Your task to perform on an android device: change the upload size in google photos Image 0: 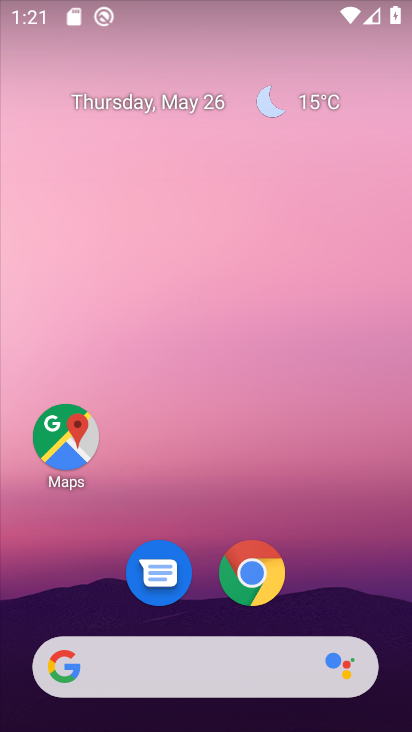
Step 0: drag from (357, 593) to (319, 20)
Your task to perform on an android device: change the upload size in google photos Image 1: 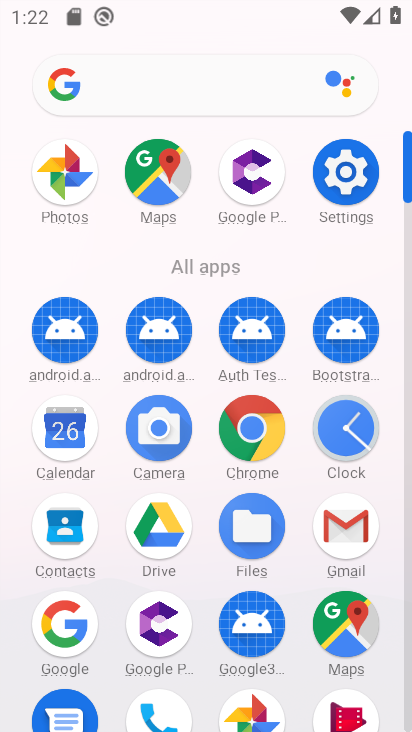
Step 1: click (262, 704)
Your task to perform on an android device: change the upload size in google photos Image 2: 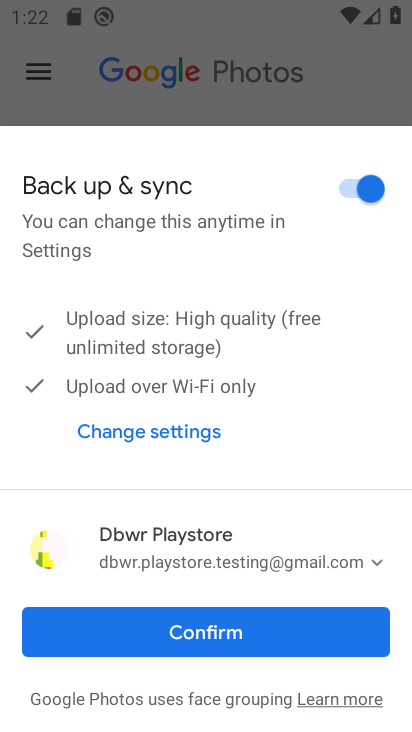
Step 2: click (204, 655)
Your task to perform on an android device: change the upload size in google photos Image 3: 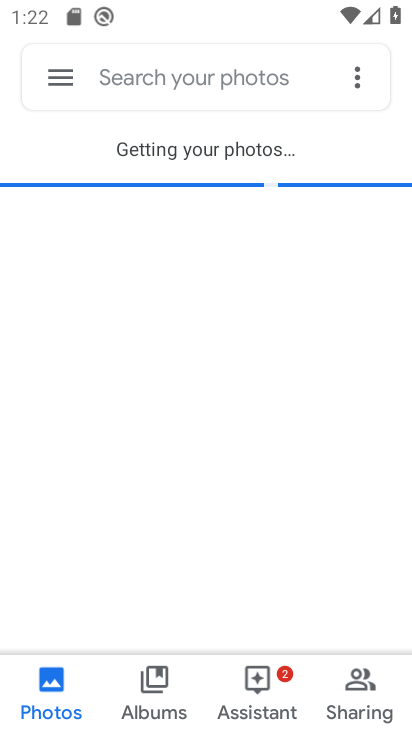
Step 3: click (65, 86)
Your task to perform on an android device: change the upload size in google photos Image 4: 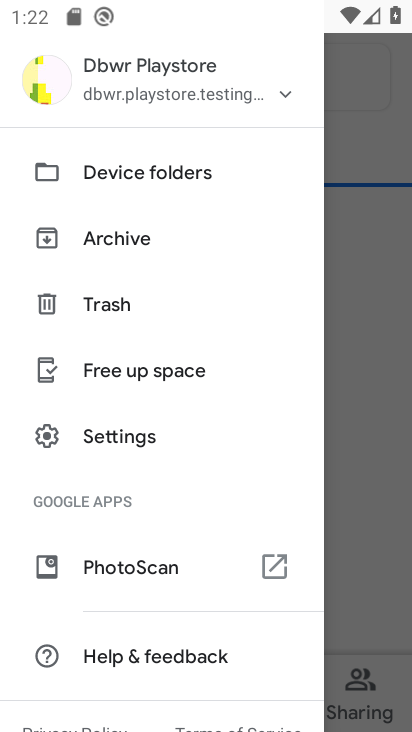
Step 4: click (158, 428)
Your task to perform on an android device: change the upload size in google photos Image 5: 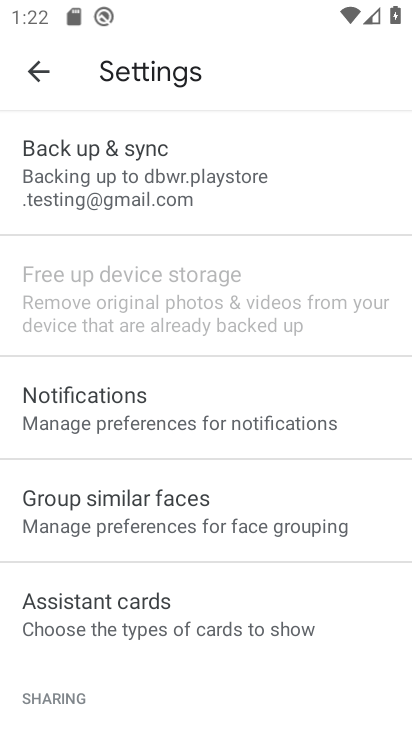
Step 5: click (125, 169)
Your task to perform on an android device: change the upload size in google photos Image 6: 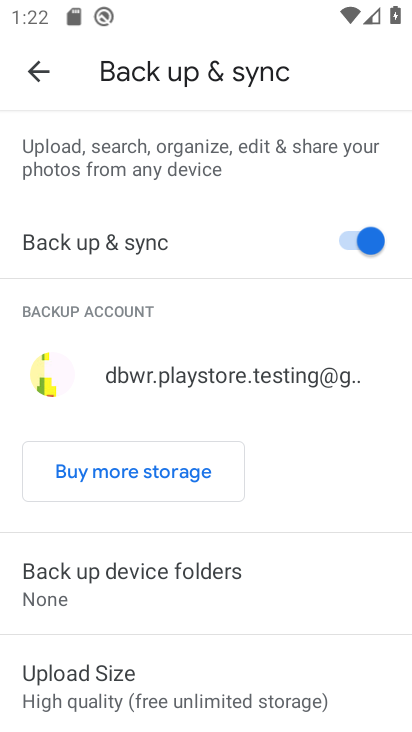
Step 6: click (178, 677)
Your task to perform on an android device: change the upload size in google photos Image 7: 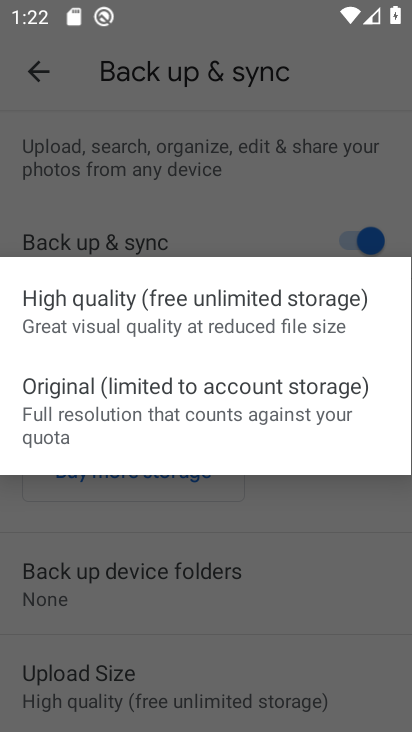
Step 7: click (157, 406)
Your task to perform on an android device: change the upload size in google photos Image 8: 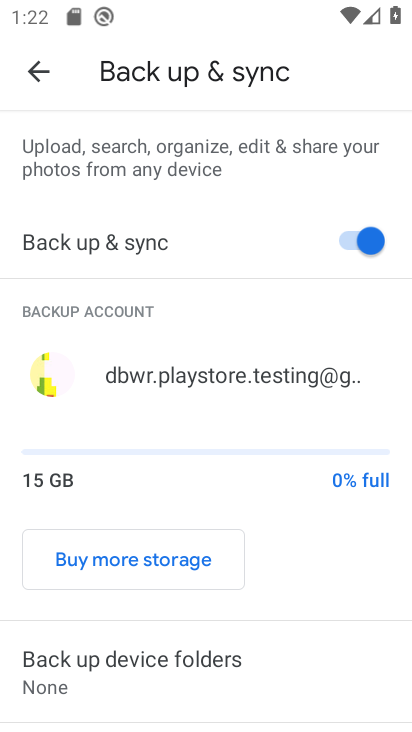
Step 8: task complete